Your task to perform on an android device: open app "Nova Launcher" Image 0: 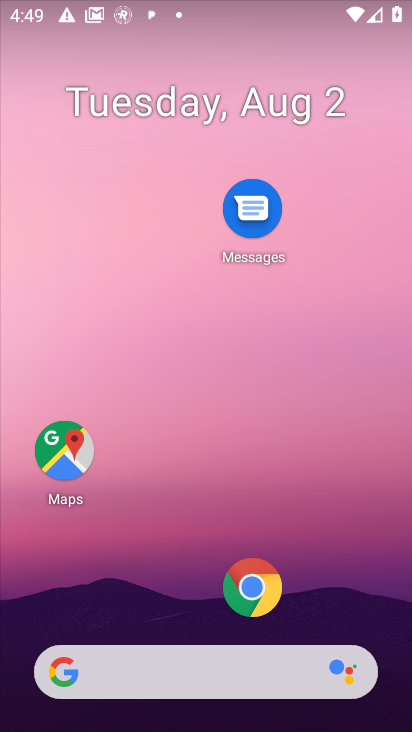
Step 0: drag from (162, 605) to (180, 142)
Your task to perform on an android device: open app "Nova Launcher" Image 1: 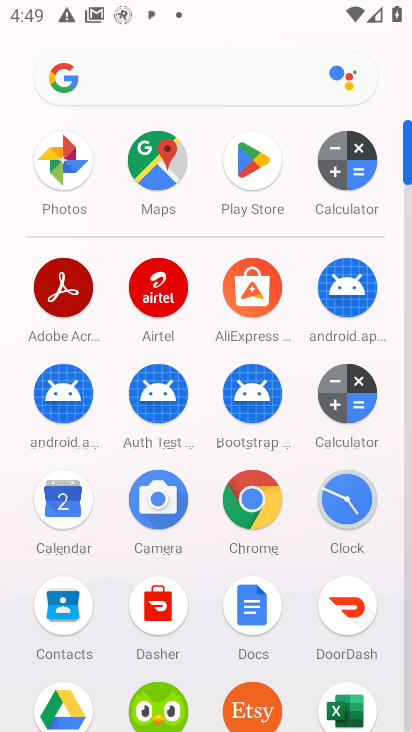
Step 1: click (253, 182)
Your task to perform on an android device: open app "Nova Launcher" Image 2: 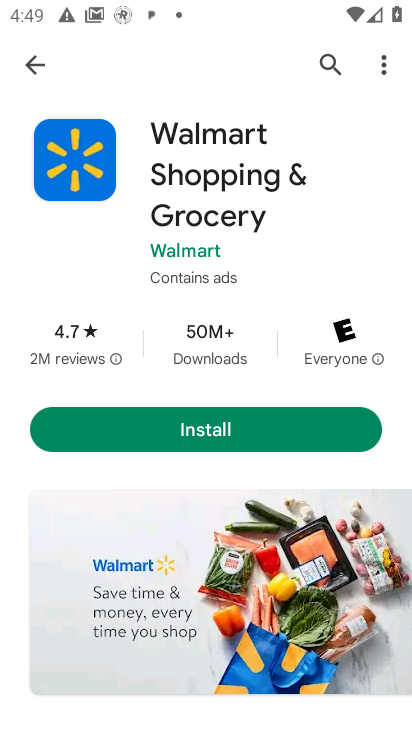
Step 2: click (316, 56)
Your task to perform on an android device: open app "Nova Launcher" Image 3: 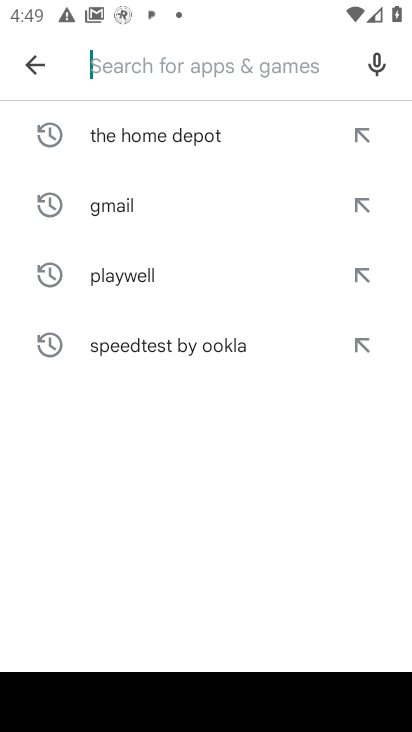
Step 3: type "Nova Launcher"
Your task to perform on an android device: open app "Nova Launcher" Image 4: 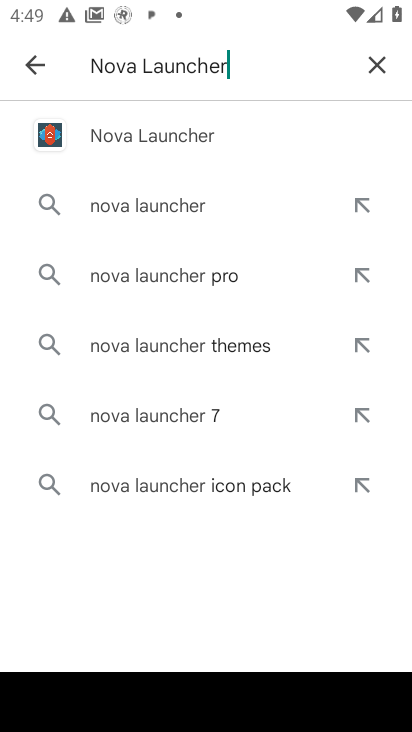
Step 4: type ""
Your task to perform on an android device: open app "Nova Launcher" Image 5: 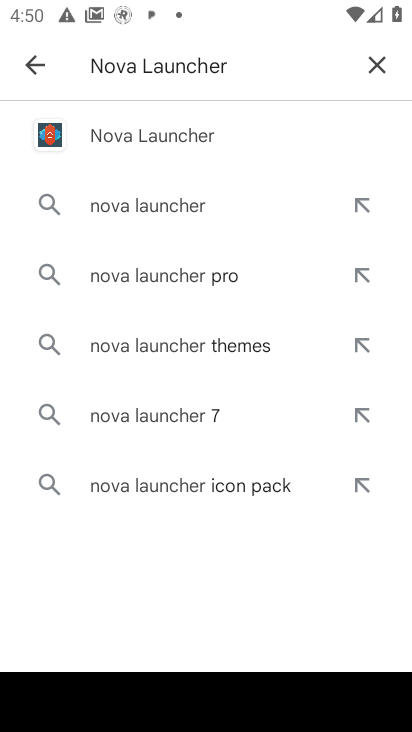
Step 5: click (172, 136)
Your task to perform on an android device: open app "Nova Launcher" Image 6: 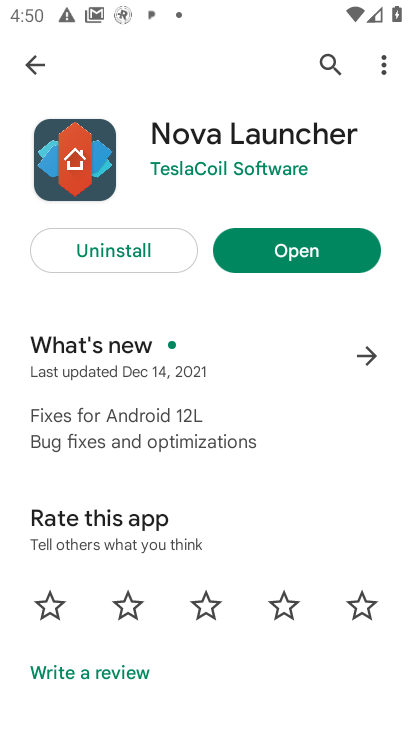
Step 6: click (299, 247)
Your task to perform on an android device: open app "Nova Launcher" Image 7: 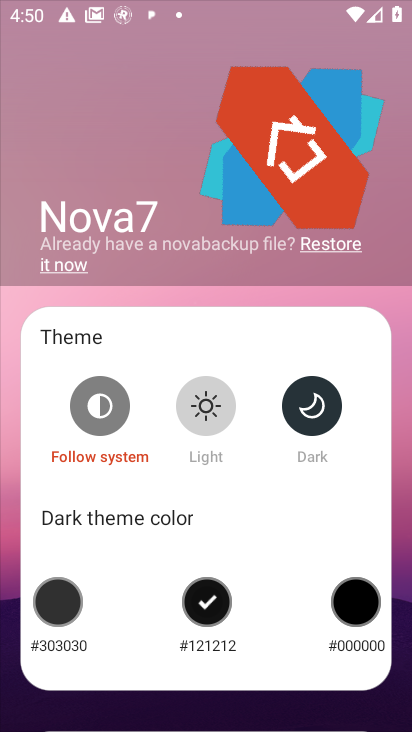
Step 7: task complete